Your task to perform on an android device: open a new tab in the chrome app Image 0: 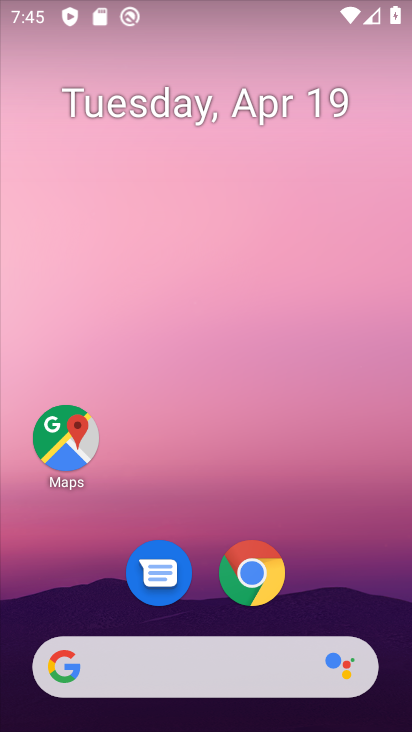
Step 0: click (256, 572)
Your task to perform on an android device: open a new tab in the chrome app Image 1: 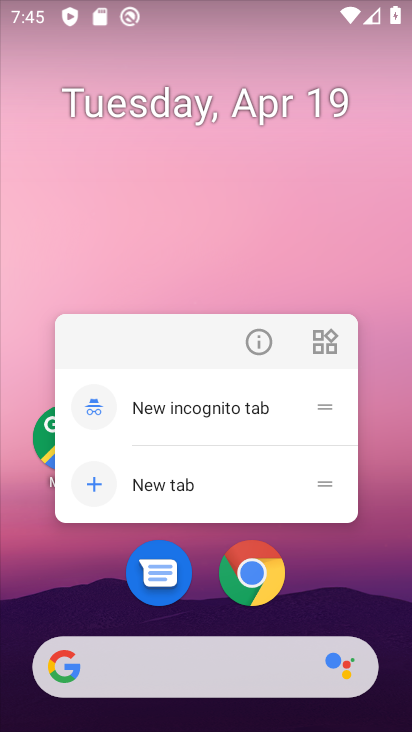
Step 1: click (251, 568)
Your task to perform on an android device: open a new tab in the chrome app Image 2: 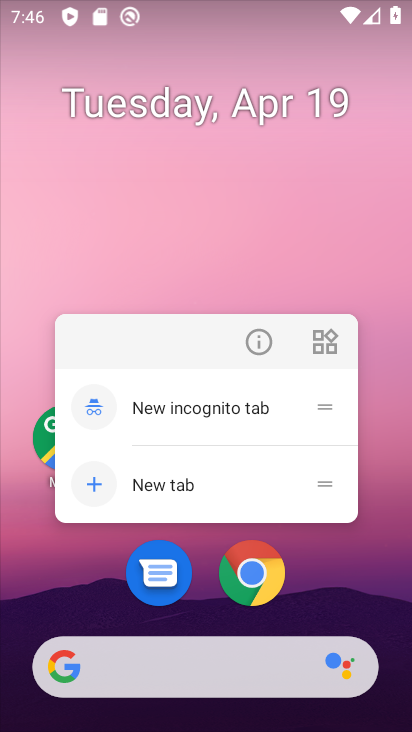
Step 2: click (248, 580)
Your task to perform on an android device: open a new tab in the chrome app Image 3: 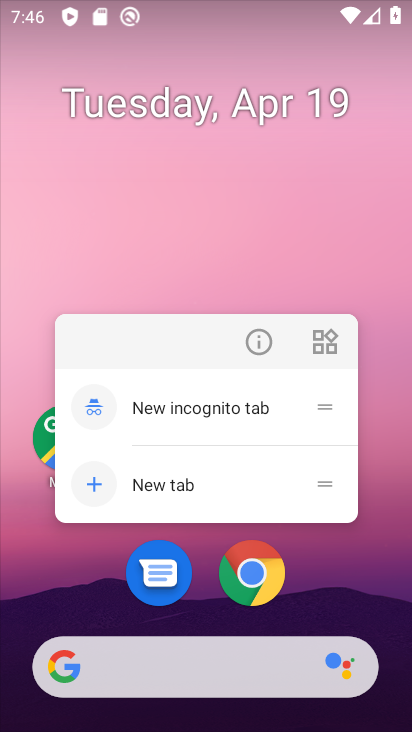
Step 3: click (248, 580)
Your task to perform on an android device: open a new tab in the chrome app Image 4: 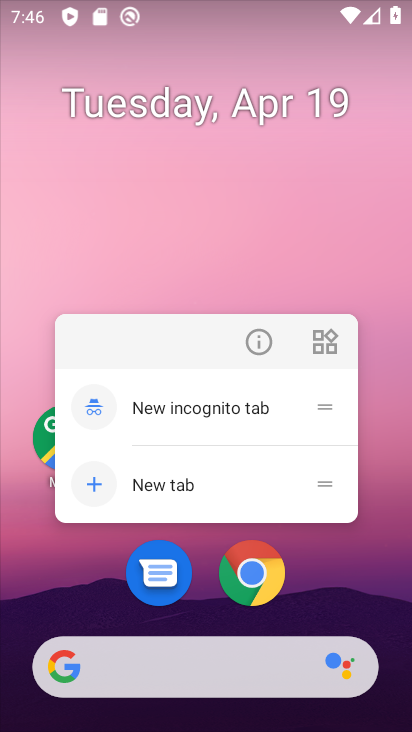
Step 4: click (248, 580)
Your task to perform on an android device: open a new tab in the chrome app Image 5: 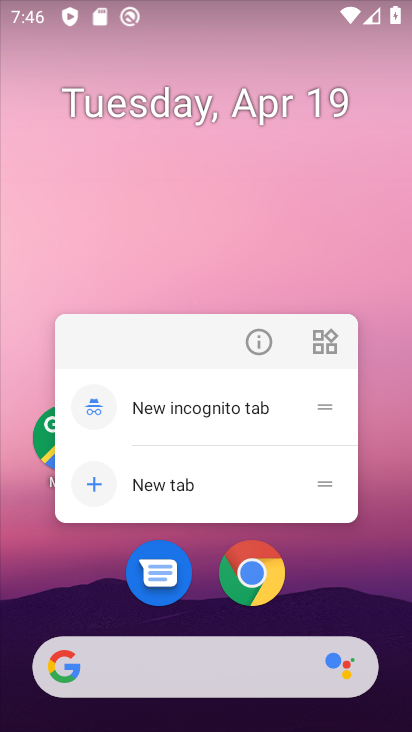
Step 5: click (249, 580)
Your task to perform on an android device: open a new tab in the chrome app Image 6: 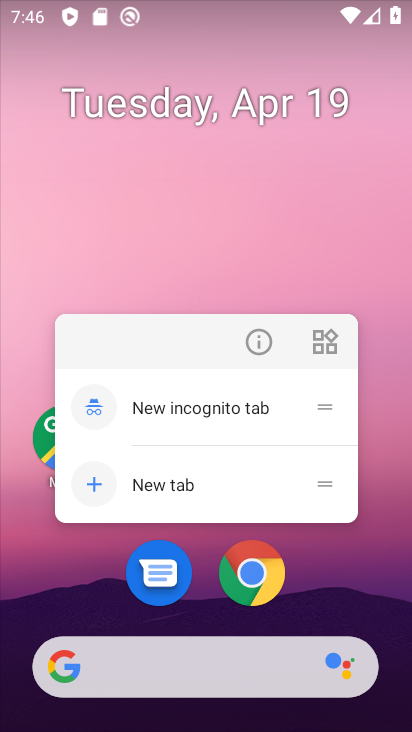
Step 6: click (262, 583)
Your task to perform on an android device: open a new tab in the chrome app Image 7: 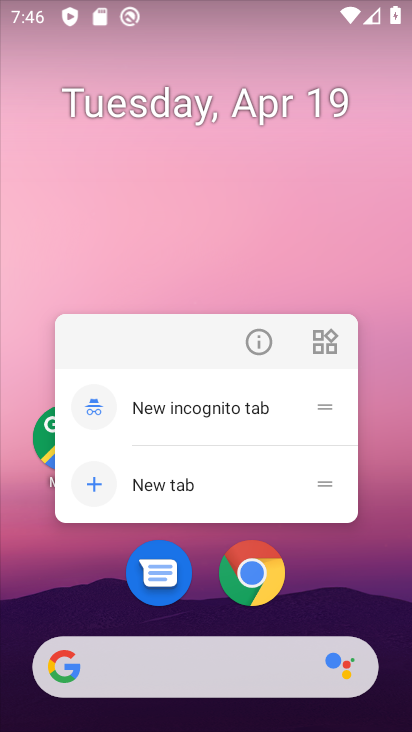
Step 7: click (257, 574)
Your task to perform on an android device: open a new tab in the chrome app Image 8: 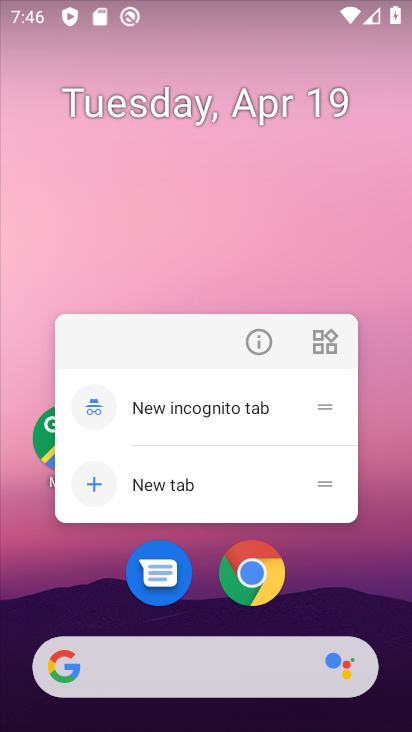
Step 8: drag from (330, 584) to (394, 54)
Your task to perform on an android device: open a new tab in the chrome app Image 9: 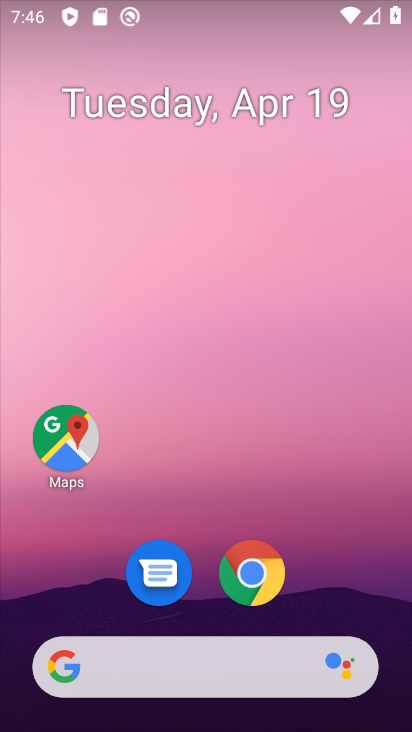
Step 9: drag from (337, 498) to (286, 0)
Your task to perform on an android device: open a new tab in the chrome app Image 10: 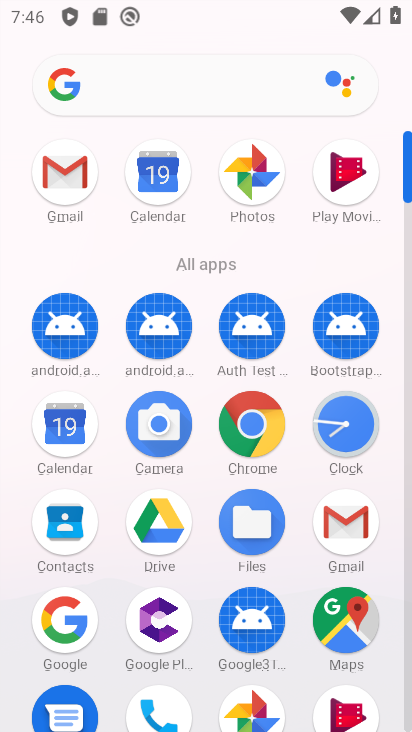
Step 10: click (248, 434)
Your task to perform on an android device: open a new tab in the chrome app Image 11: 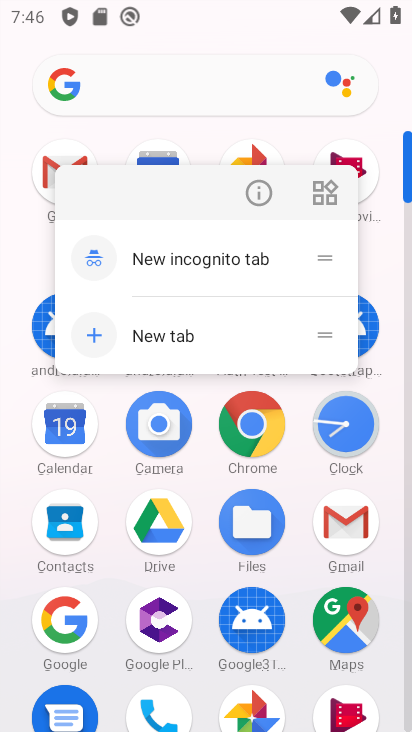
Step 11: click (252, 427)
Your task to perform on an android device: open a new tab in the chrome app Image 12: 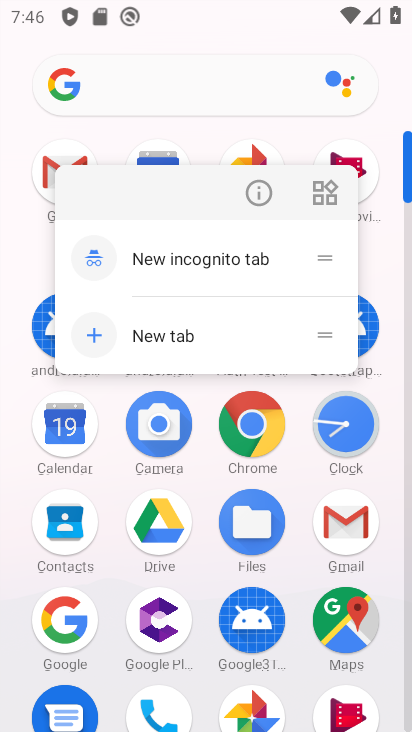
Step 12: click (254, 441)
Your task to perform on an android device: open a new tab in the chrome app Image 13: 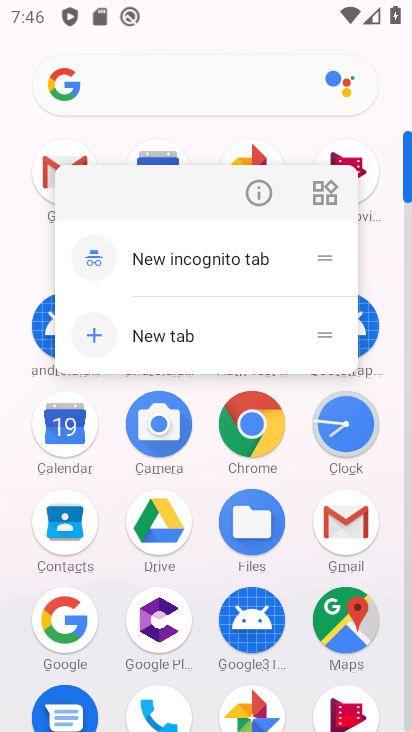
Step 13: click (273, 429)
Your task to perform on an android device: open a new tab in the chrome app Image 14: 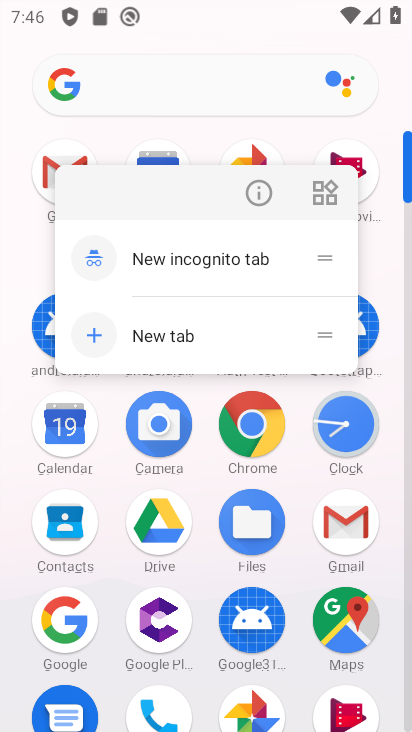
Step 14: click (263, 400)
Your task to perform on an android device: open a new tab in the chrome app Image 15: 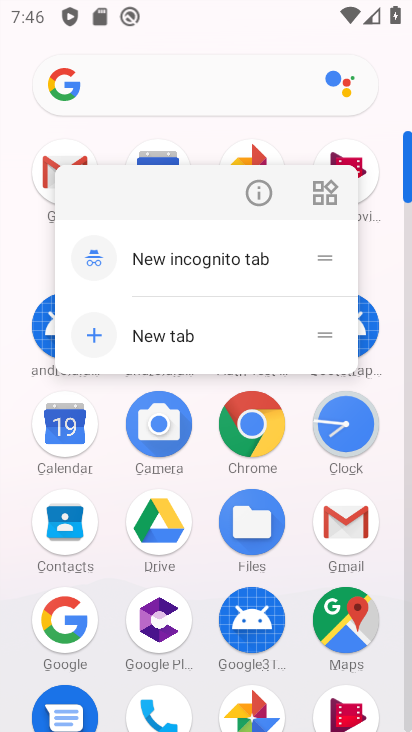
Step 15: click (228, 432)
Your task to perform on an android device: open a new tab in the chrome app Image 16: 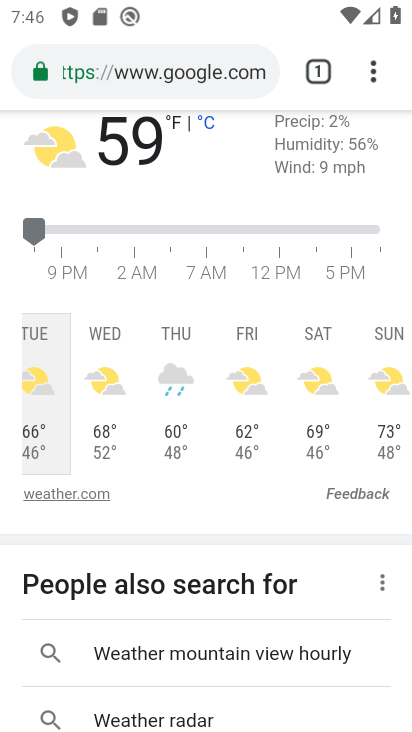
Step 16: task complete